Your task to perform on an android device: Do I have any events today? Image 0: 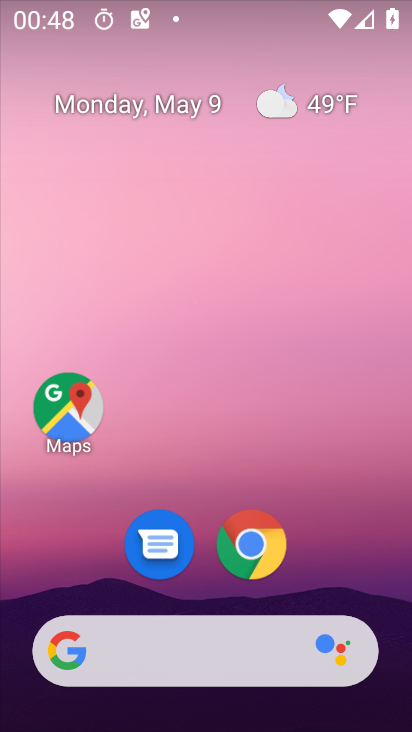
Step 0: drag from (310, 614) to (403, 38)
Your task to perform on an android device: Do I have any events today? Image 1: 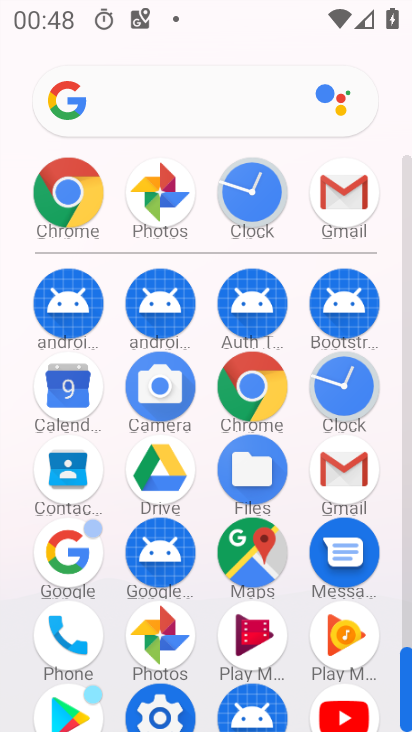
Step 1: click (75, 390)
Your task to perform on an android device: Do I have any events today? Image 2: 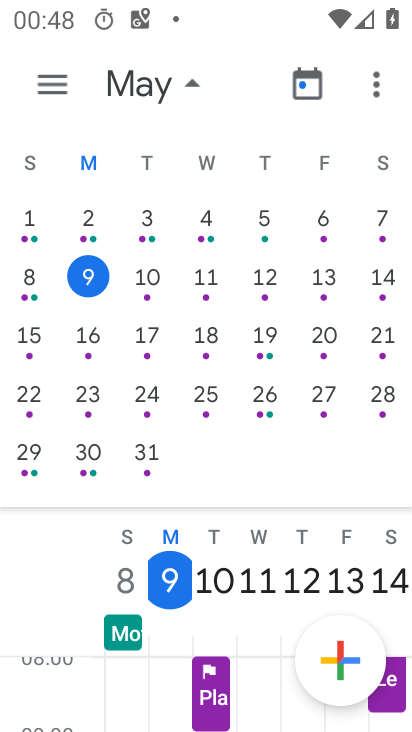
Step 2: click (80, 281)
Your task to perform on an android device: Do I have any events today? Image 3: 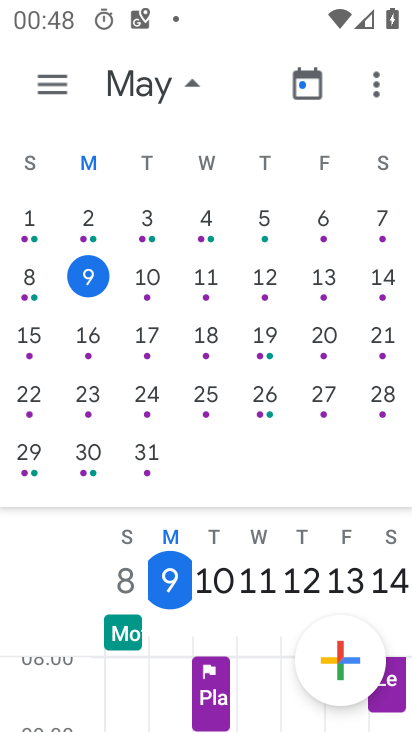
Step 3: task complete